Your task to perform on an android device: turn on improve location accuracy Image 0: 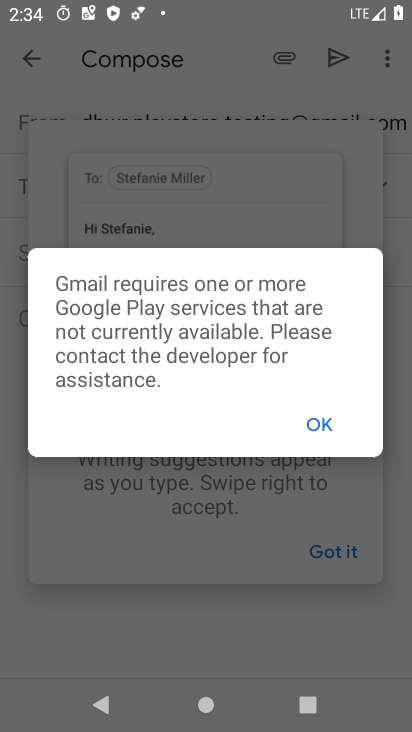
Step 0: press home button
Your task to perform on an android device: turn on improve location accuracy Image 1: 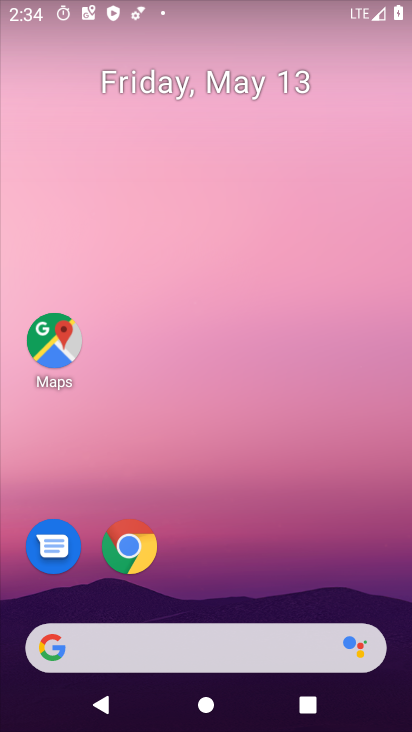
Step 1: drag from (264, 522) to (270, 224)
Your task to perform on an android device: turn on improve location accuracy Image 2: 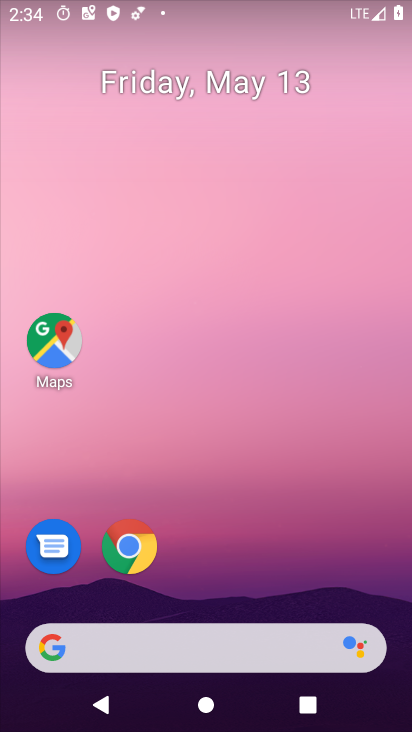
Step 2: drag from (221, 614) to (258, 268)
Your task to perform on an android device: turn on improve location accuracy Image 3: 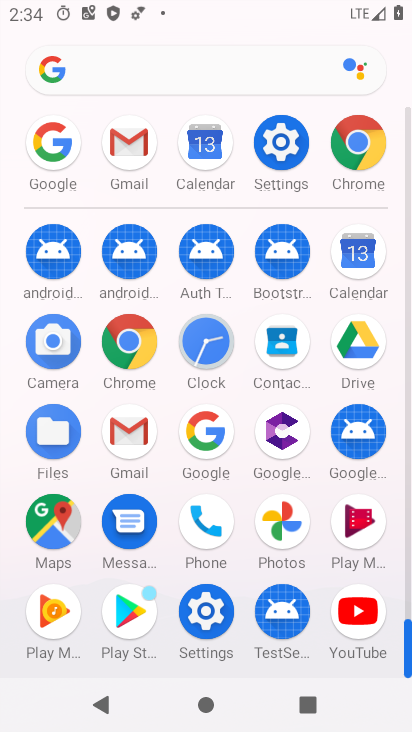
Step 3: click (277, 169)
Your task to perform on an android device: turn on improve location accuracy Image 4: 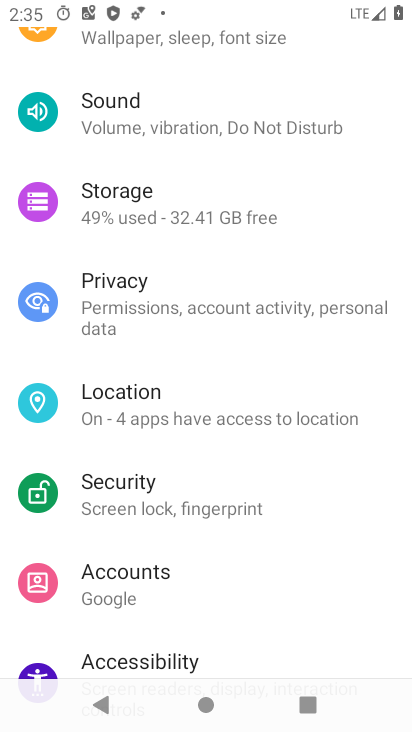
Step 4: drag from (180, 415) to (184, 275)
Your task to perform on an android device: turn on improve location accuracy Image 5: 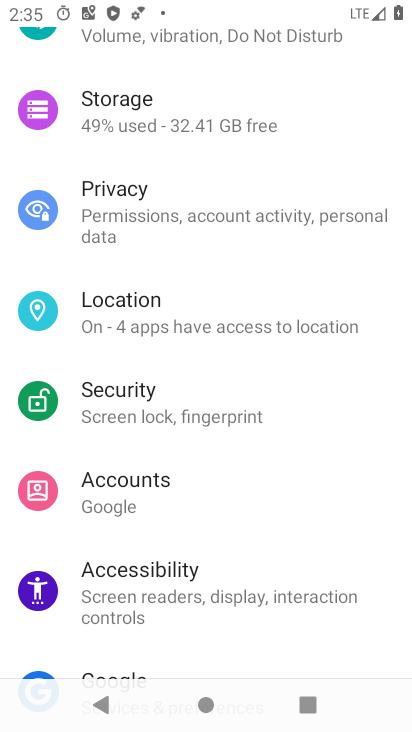
Step 5: click (178, 297)
Your task to perform on an android device: turn on improve location accuracy Image 6: 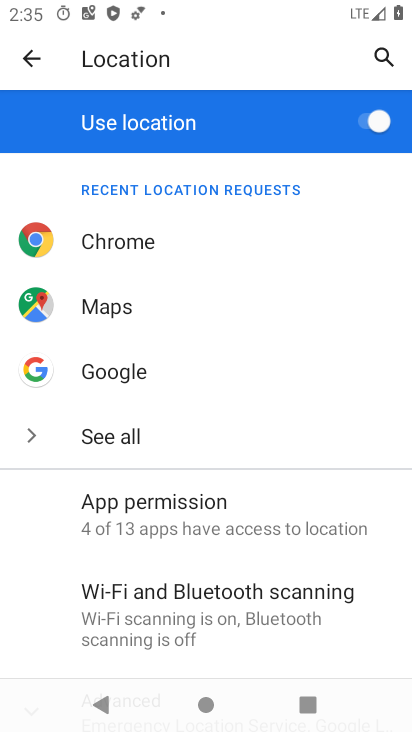
Step 6: drag from (238, 567) to (283, 168)
Your task to perform on an android device: turn on improve location accuracy Image 7: 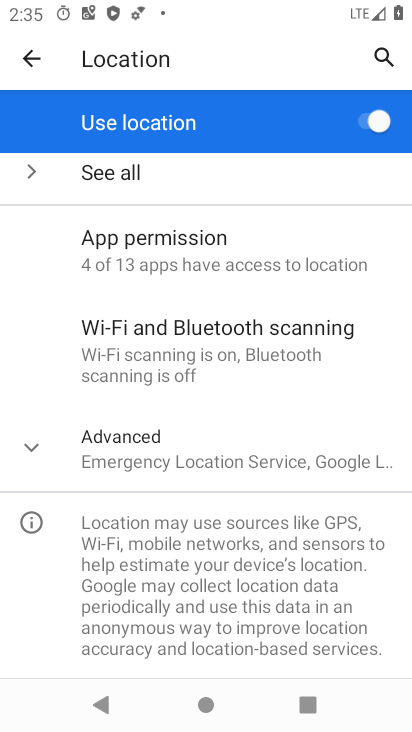
Step 7: click (233, 445)
Your task to perform on an android device: turn on improve location accuracy Image 8: 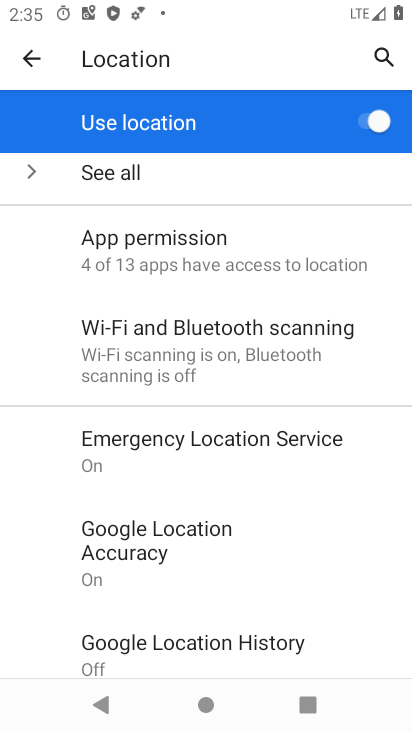
Step 8: click (253, 553)
Your task to perform on an android device: turn on improve location accuracy Image 9: 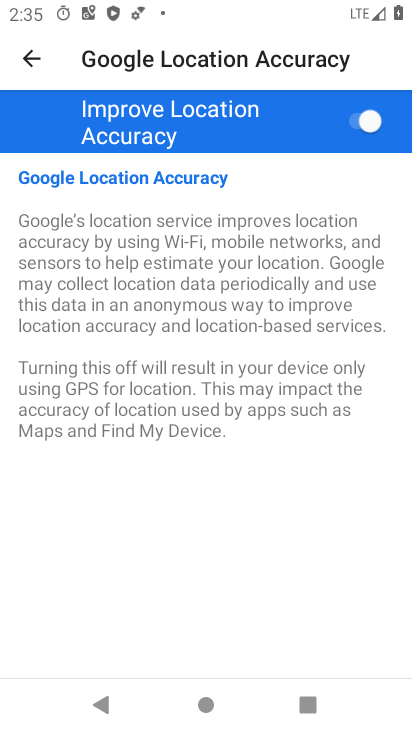
Step 9: task complete